Your task to perform on an android device: set an alarm Image 0: 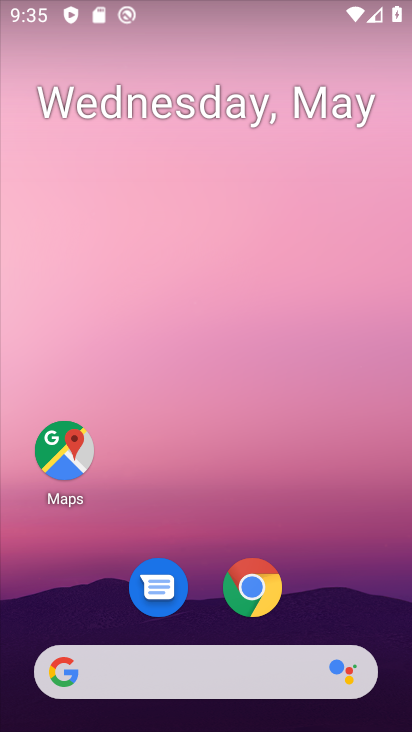
Step 0: drag from (72, 644) to (175, 71)
Your task to perform on an android device: set an alarm Image 1: 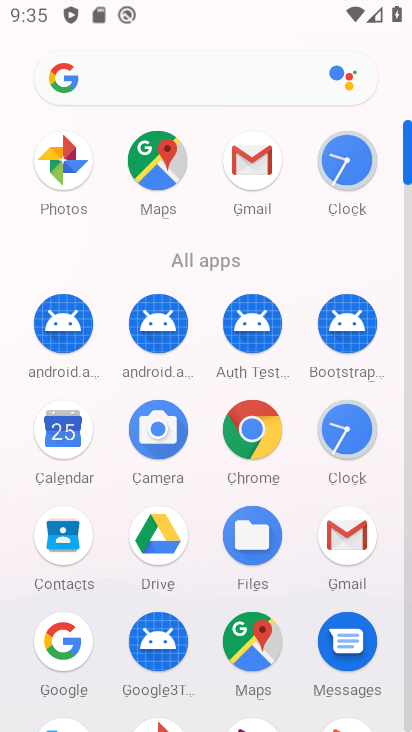
Step 1: click (356, 434)
Your task to perform on an android device: set an alarm Image 2: 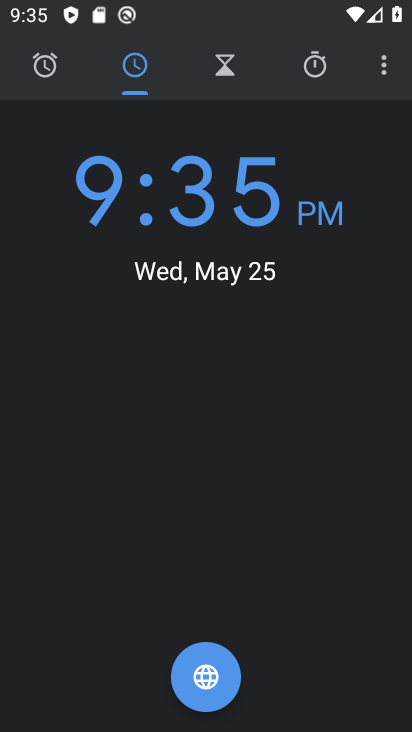
Step 2: click (83, 78)
Your task to perform on an android device: set an alarm Image 3: 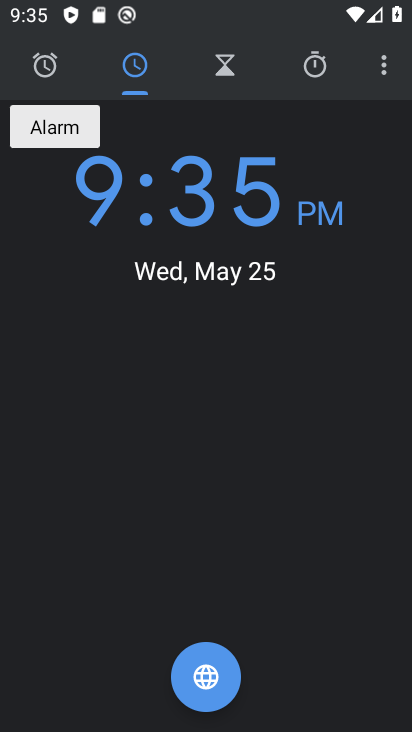
Step 3: click (54, 78)
Your task to perform on an android device: set an alarm Image 4: 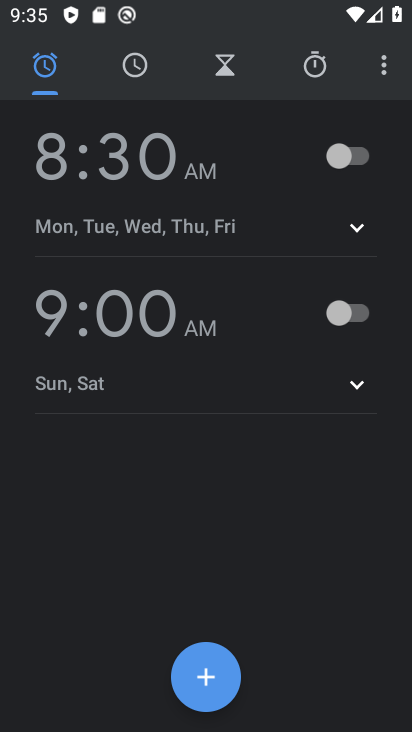
Step 4: click (368, 145)
Your task to perform on an android device: set an alarm Image 5: 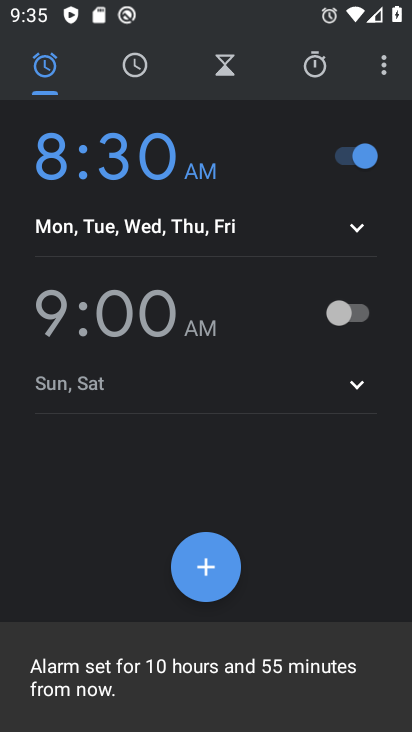
Step 5: task complete